Your task to perform on an android device: clear history in the chrome app Image 0: 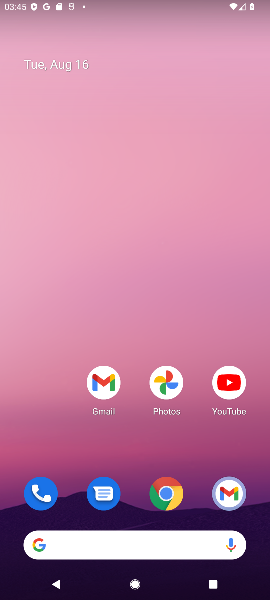
Step 0: drag from (67, 453) to (62, 69)
Your task to perform on an android device: clear history in the chrome app Image 1: 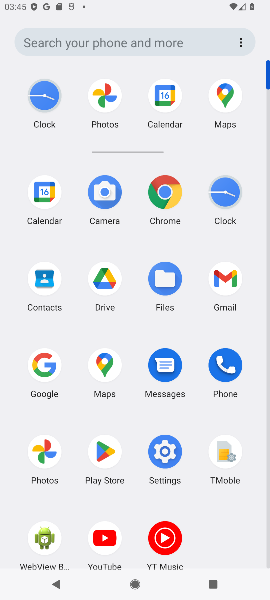
Step 1: click (164, 188)
Your task to perform on an android device: clear history in the chrome app Image 2: 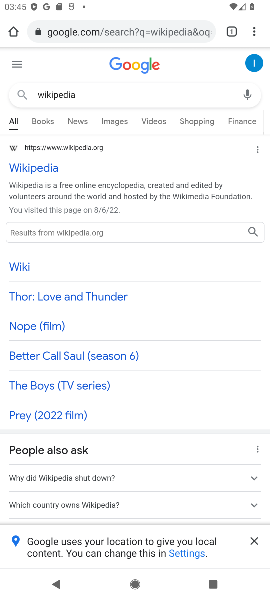
Step 2: click (253, 35)
Your task to perform on an android device: clear history in the chrome app Image 3: 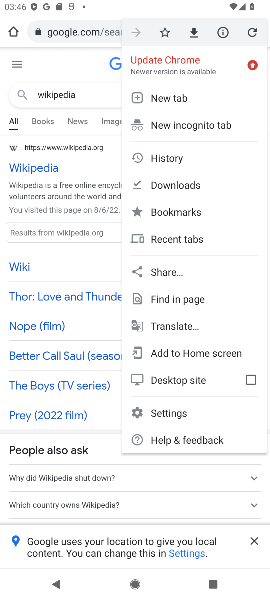
Step 3: click (175, 154)
Your task to perform on an android device: clear history in the chrome app Image 4: 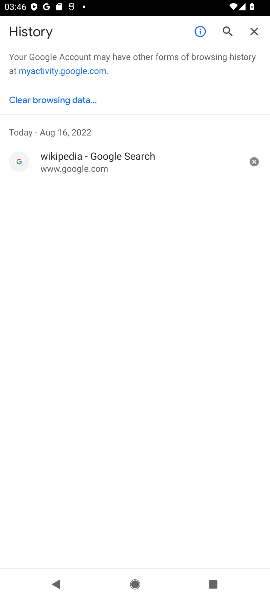
Step 4: click (69, 104)
Your task to perform on an android device: clear history in the chrome app Image 5: 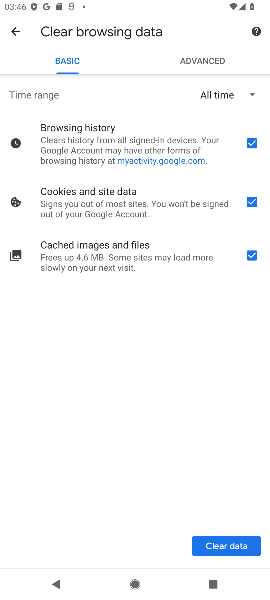
Step 5: click (222, 544)
Your task to perform on an android device: clear history in the chrome app Image 6: 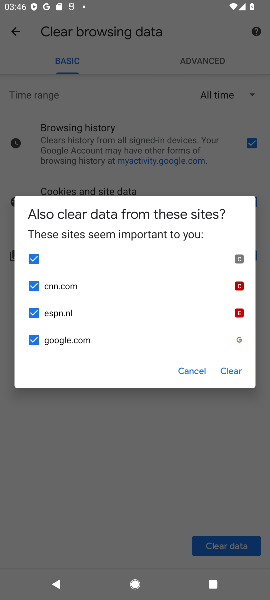
Step 6: click (235, 363)
Your task to perform on an android device: clear history in the chrome app Image 7: 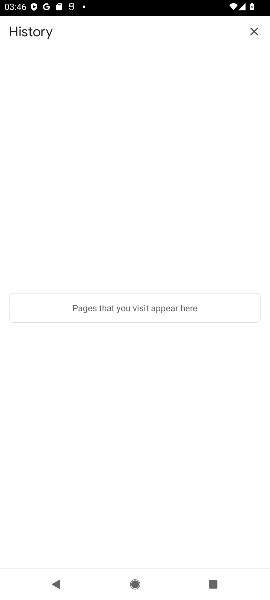
Step 7: task complete